Your task to perform on an android device: Open Youtube and go to the subscriptions tab Image 0: 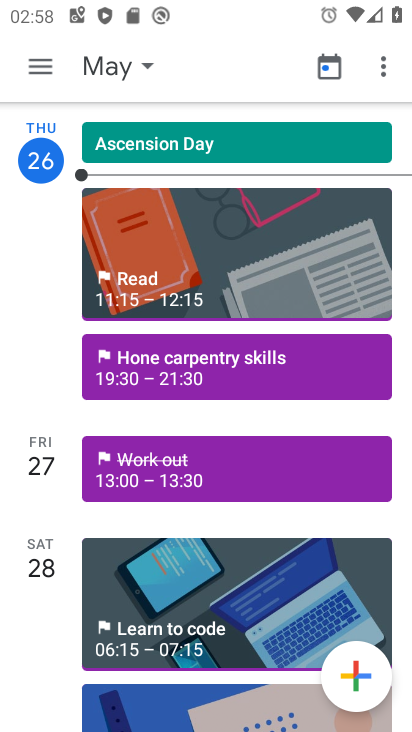
Step 0: press home button
Your task to perform on an android device: Open Youtube and go to the subscriptions tab Image 1: 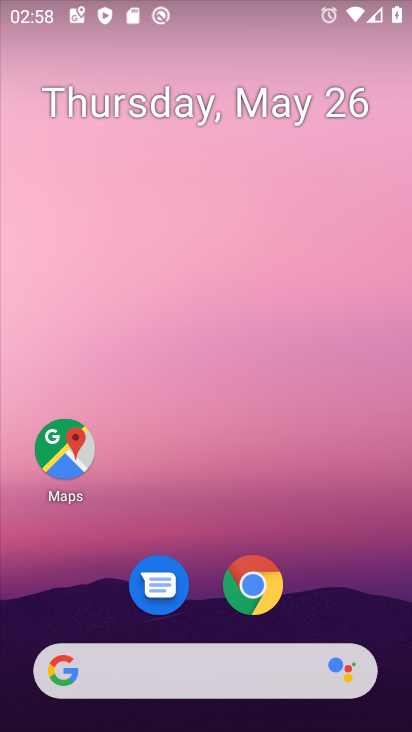
Step 1: drag from (233, 517) to (282, 27)
Your task to perform on an android device: Open Youtube and go to the subscriptions tab Image 2: 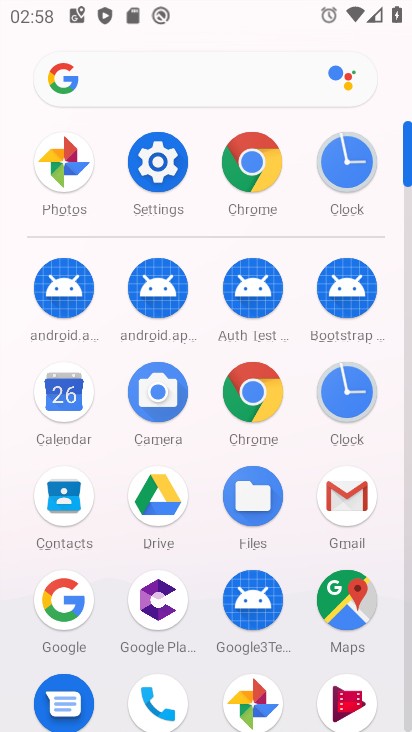
Step 2: drag from (300, 440) to (303, 142)
Your task to perform on an android device: Open Youtube and go to the subscriptions tab Image 3: 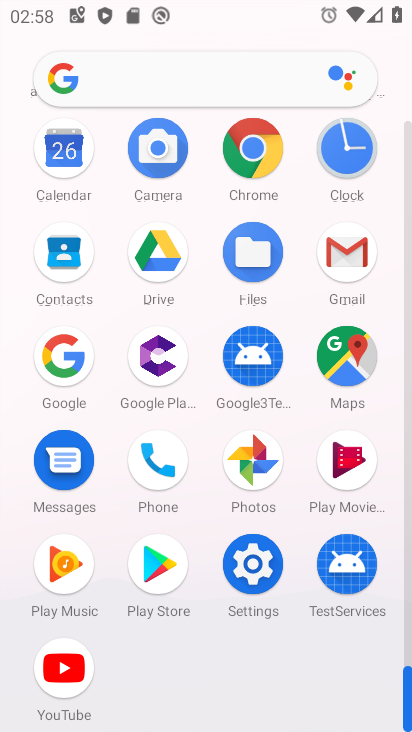
Step 3: click (65, 648)
Your task to perform on an android device: Open Youtube and go to the subscriptions tab Image 4: 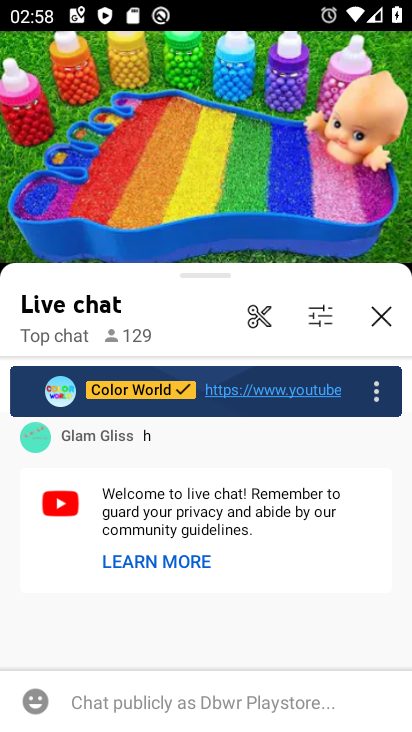
Step 4: press back button
Your task to perform on an android device: Open Youtube and go to the subscriptions tab Image 5: 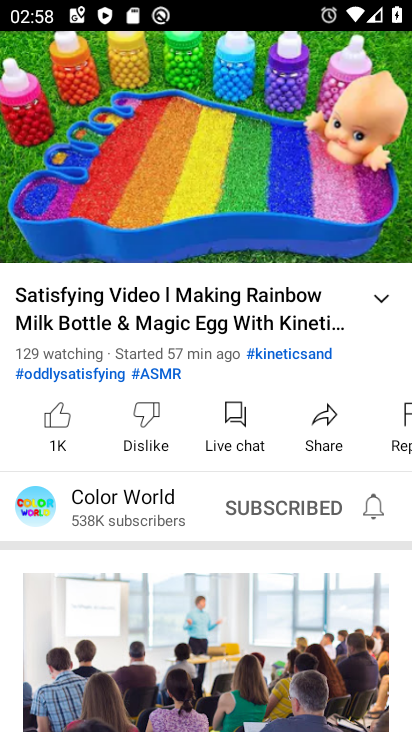
Step 5: press back button
Your task to perform on an android device: Open Youtube and go to the subscriptions tab Image 6: 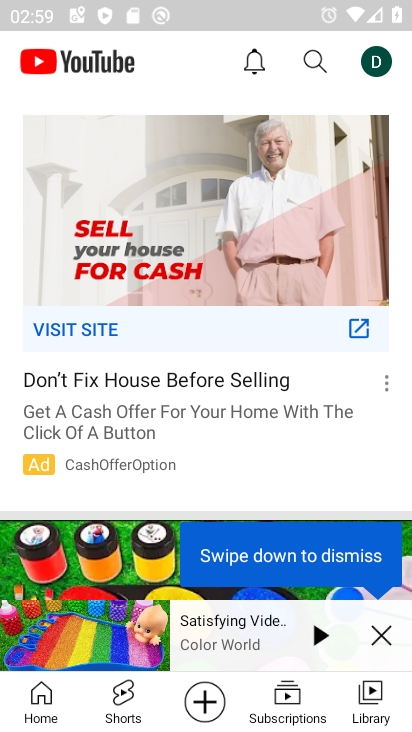
Step 6: click (282, 691)
Your task to perform on an android device: Open Youtube and go to the subscriptions tab Image 7: 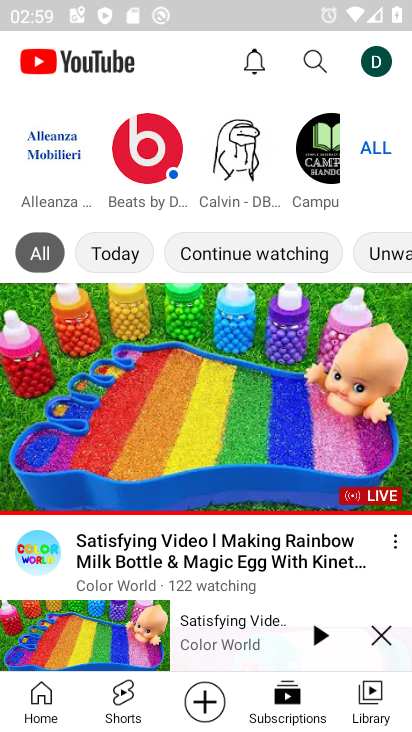
Step 7: task complete